Your task to perform on an android device: turn on priority inbox in the gmail app Image 0: 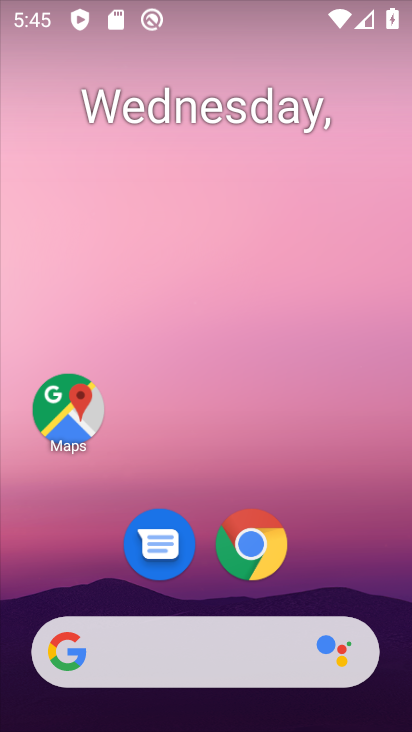
Step 0: drag from (359, 584) to (301, 51)
Your task to perform on an android device: turn on priority inbox in the gmail app Image 1: 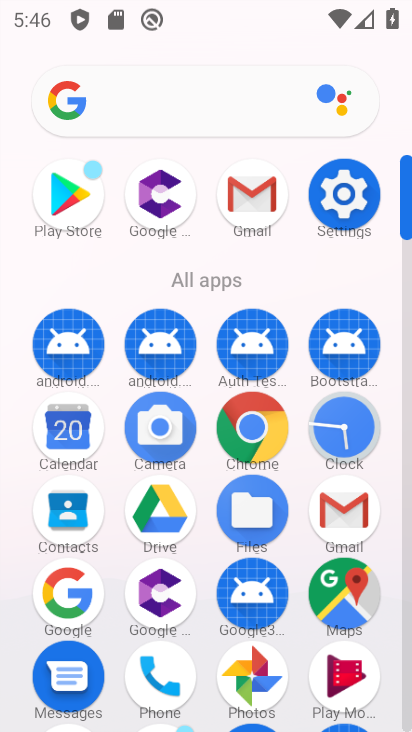
Step 1: click (346, 509)
Your task to perform on an android device: turn on priority inbox in the gmail app Image 2: 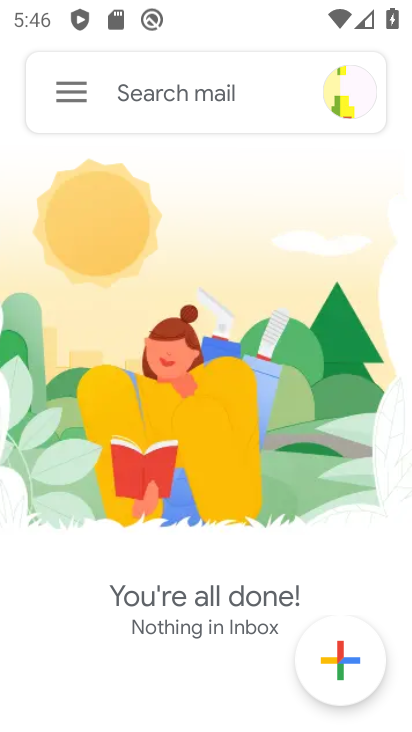
Step 2: click (65, 94)
Your task to perform on an android device: turn on priority inbox in the gmail app Image 3: 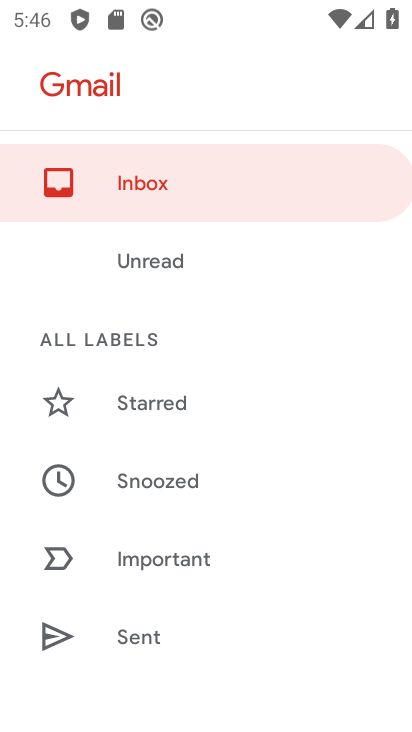
Step 3: drag from (231, 599) to (253, 186)
Your task to perform on an android device: turn on priority inbox in the gmail app Image 4: 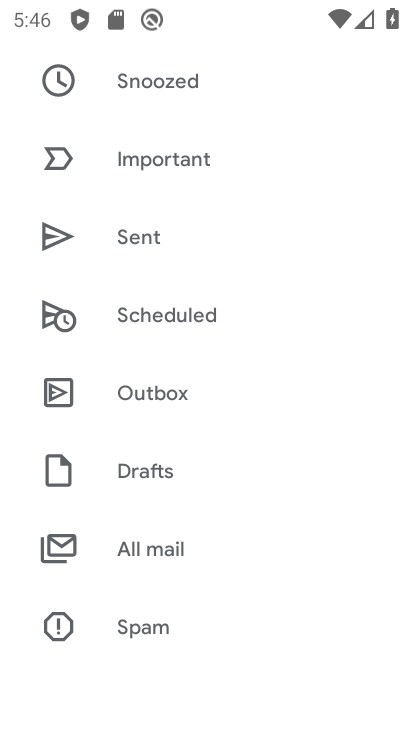
Step 4: drag from (255, 602) to (252, 178)
Your task to perform on an android device: turn on priority inbox in the gmail app Image 5: 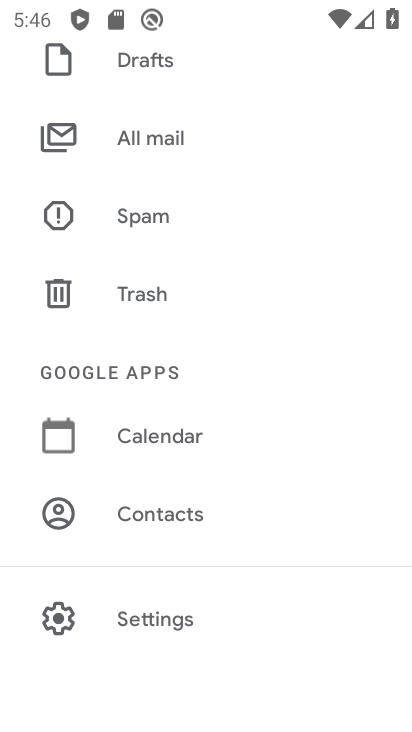
Step 5: click (202, 635)
Your task to perform on an android device: turn on priority inbox in the gmail app Image 6: 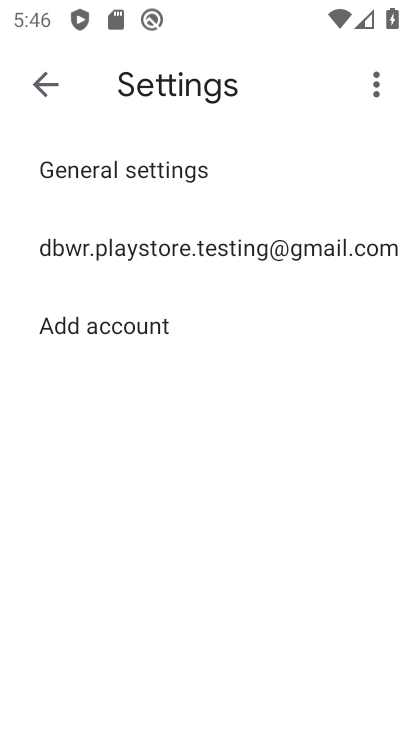
Step 6: click (184, 254)
Your task to perform on an android device: turn on priority inbox in the gmail app Image 7: 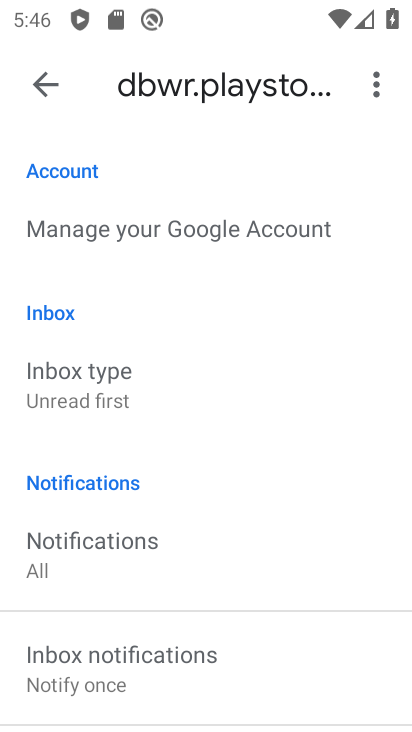
Step 7: click (113, 388)
Your task to perform on an android device: turn on priority inbox in the gmail app Image 8: 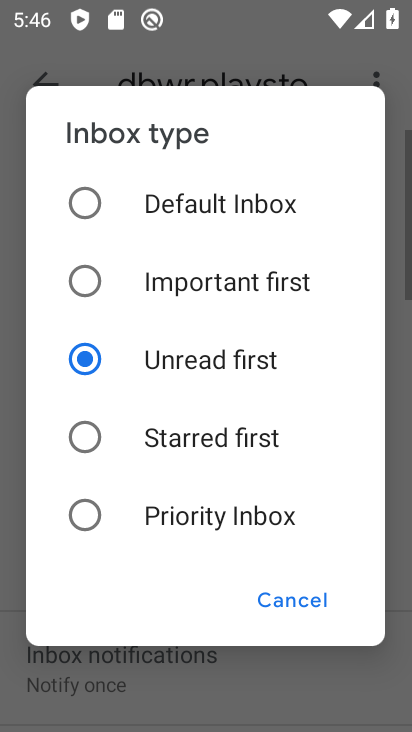
Step 8: click (184, 522)
Your task to perform on an android device: turn on priority inbox in the gmail app Image 9: 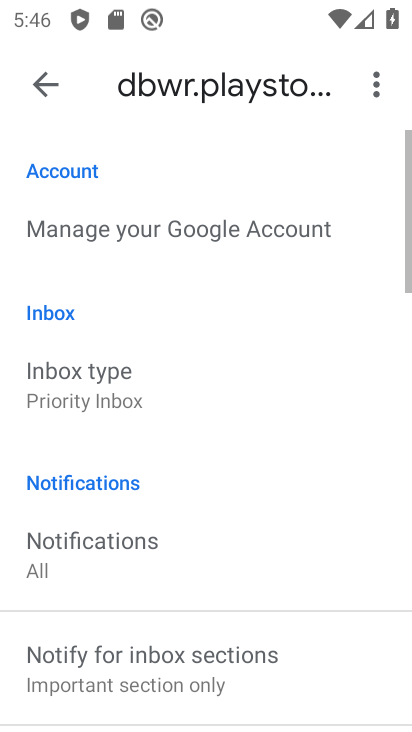
Step 9: task complete